Your task to perform on an android device: star an email in the gmail app Image 0: 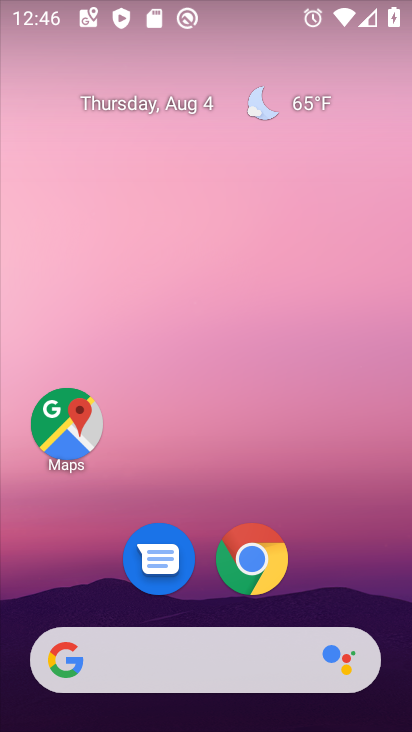
Step 0: drag from (147, 674) to (204, 188)
Your task to perform on an android device: star an email in the gmail app Image 1: 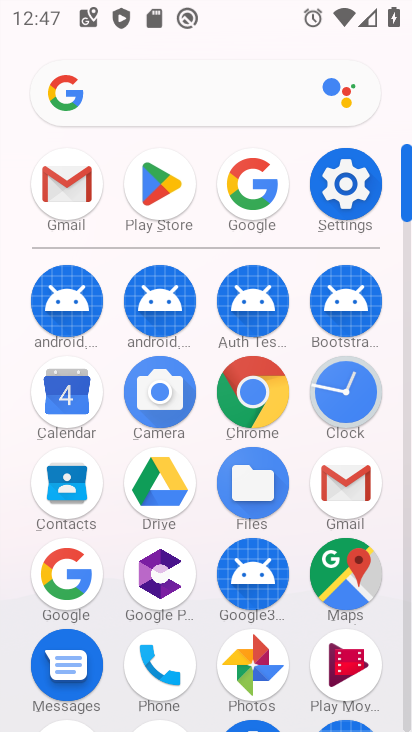
Step 1: click (345, 478)
Your task to perform on an android device: star an email in the gmail app Image 2: 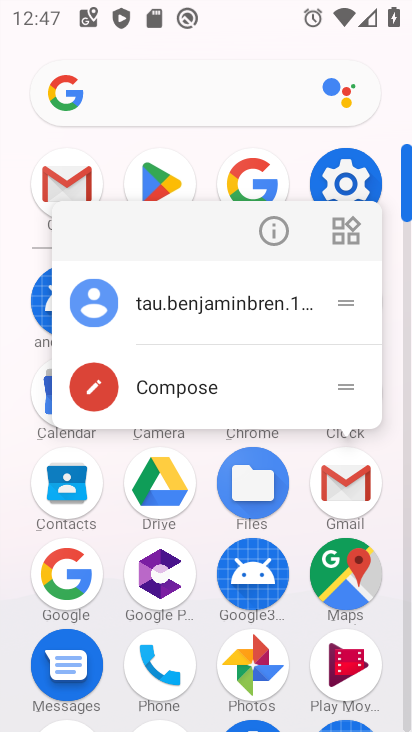
Step 2: click (345, 478)
Your task to perform on an android device: star an email in the gmail app Image 3: 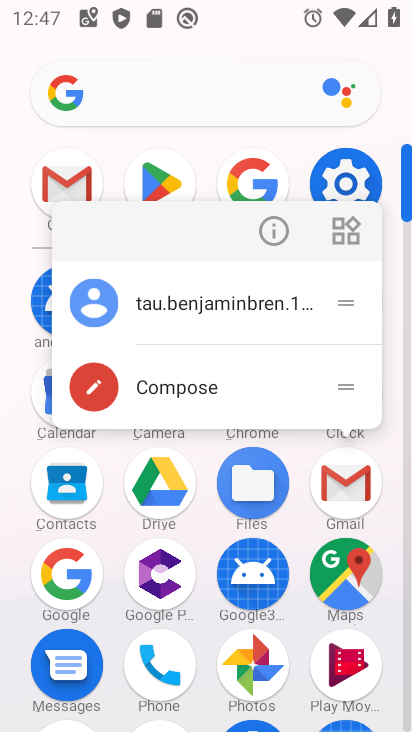
Step 3: click (345, 478)
Your task to perform on an android device: star an email in the gmail app Image 4: 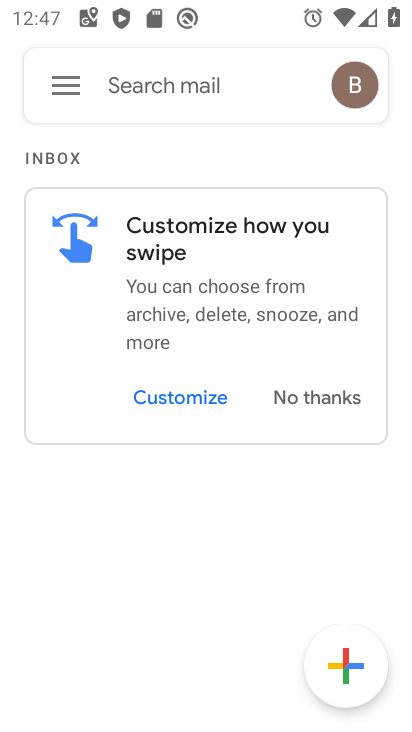
Step 4: click (63, 81)
Your task to perform on an android device: star an email in the gmail app Image 5: 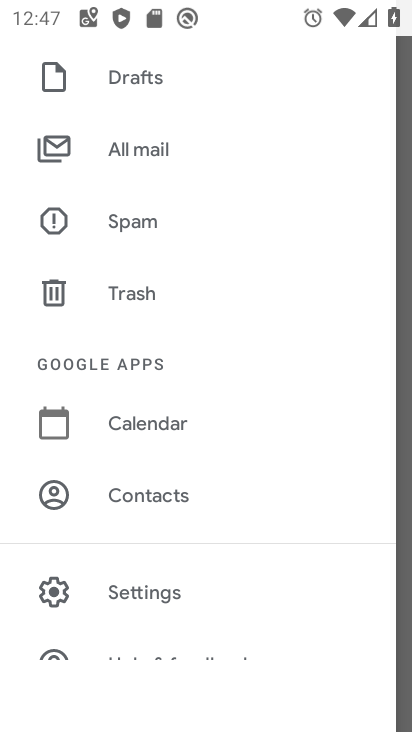
Step 5: click (131, 157)
Your task to perform on an android device: star an email in the gmail app Image 6: 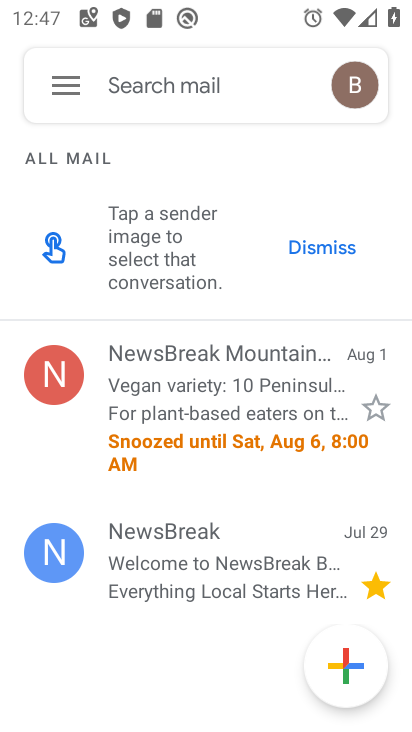
Step 6: click (378, 405)
Your task to perform on an android device: star an email in the gmail app Image 7: 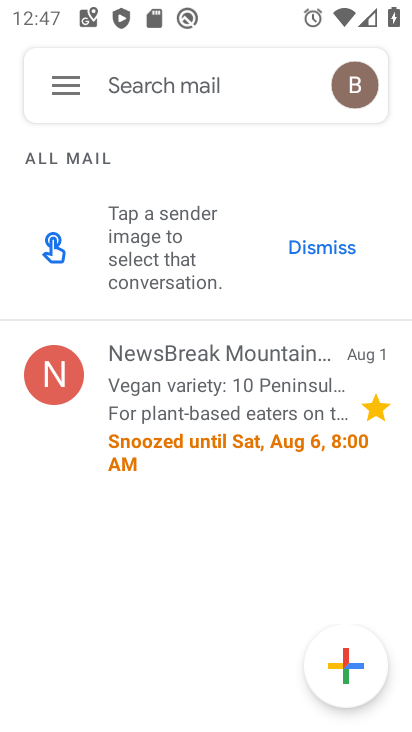
Step 7: task complete